Your task to perform on an android device: Open maps Image 0: 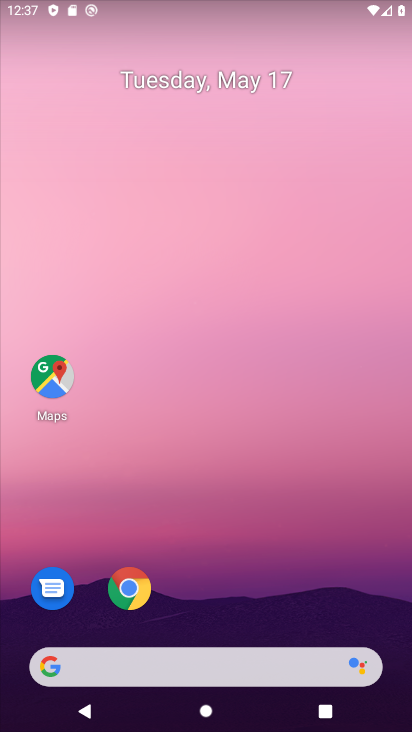
Step 0: click (53, 393)
Your task to perform on an android device: Open maps Image 1: 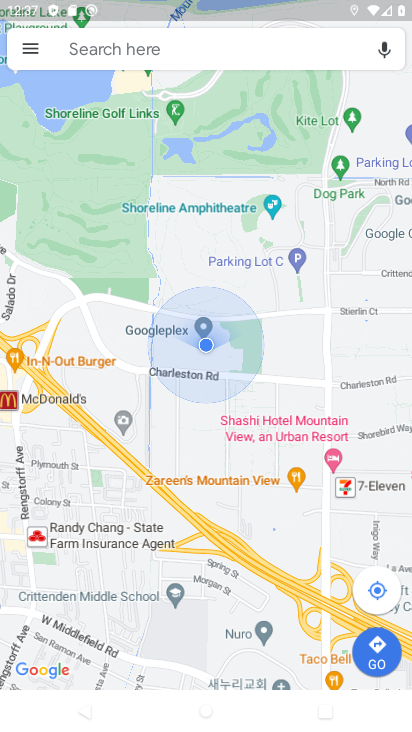
Step 1: task complete